Your task to perform on an android device: Open the stopwatch Image 0: 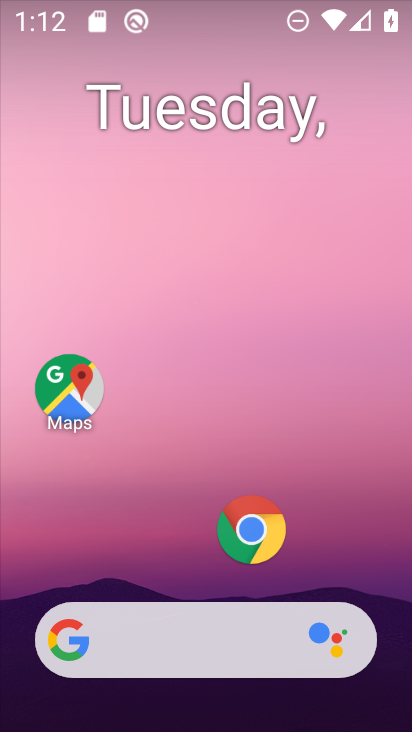
Step 0: drag from (167, 670) to (187, 264)
Your task to perform on an android device: Open the stopwatch Image 1: 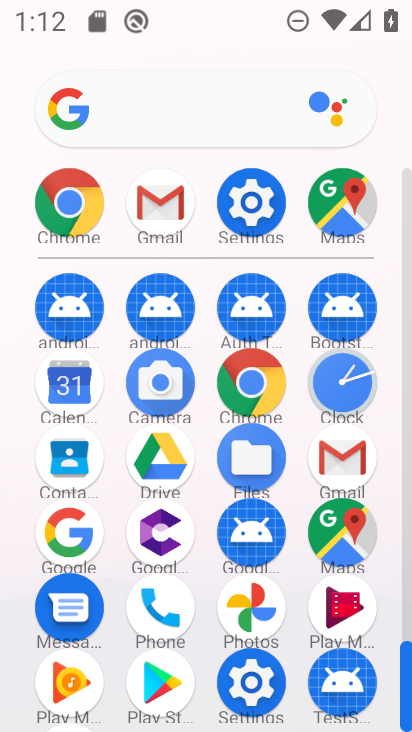
Step 1: click (343, 370)
Your task to perform on an android device: Open the stopwatch Image 2: 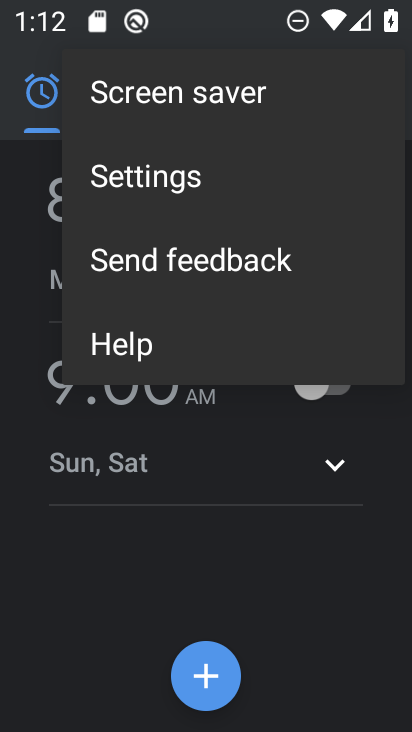
Step 2: click (112, 517)
Your task to perform on an android device: Open the stopwatch Image 3: 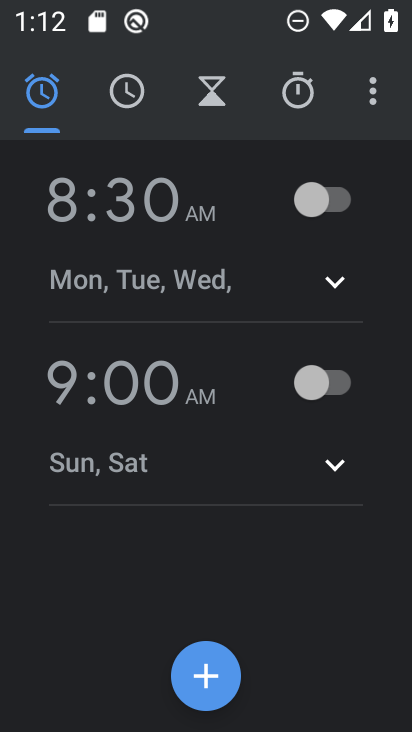
Step 3: click (291, 96)
Your task to perform on an android device: Open the stopwatch Image 4: 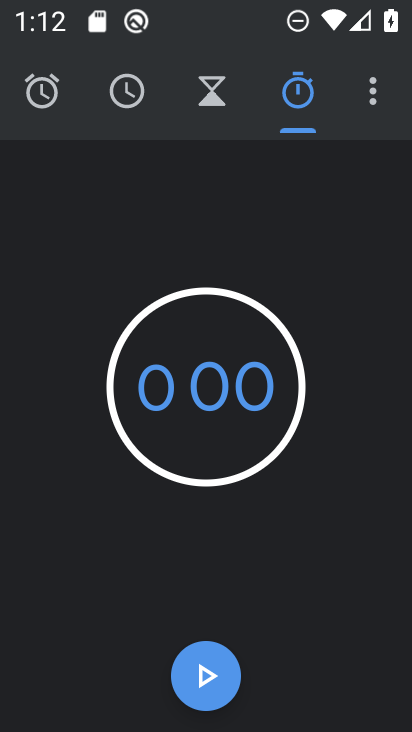
Step 4: task complete